Your task to perform on an android device: remove spam from my inbox in the gmail app Image 0: 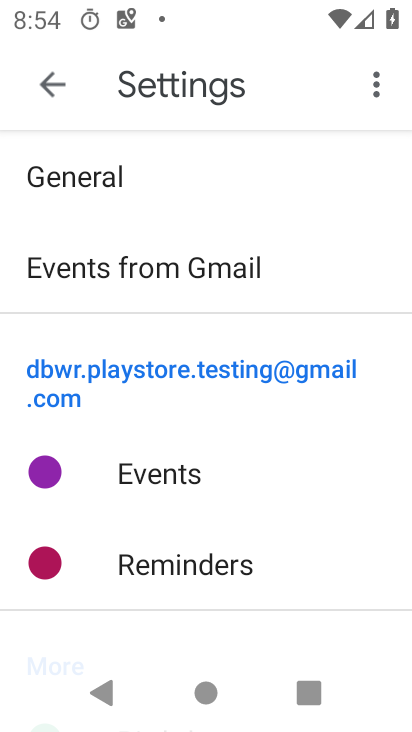
Step 0: press home button
Your task to perform on an android device: remove spam from my inbox in the gmail app Image 1: 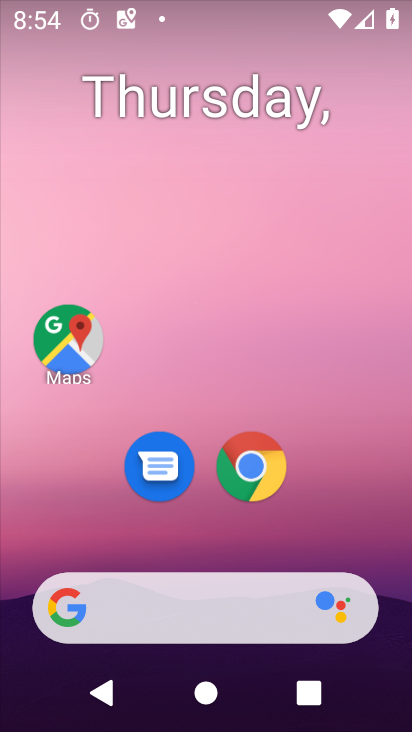
Step 1: drag from (360, 482) to (308, 82)
Your task to perform on an android device: remove spam from my inbox in the gmail app Image 2: 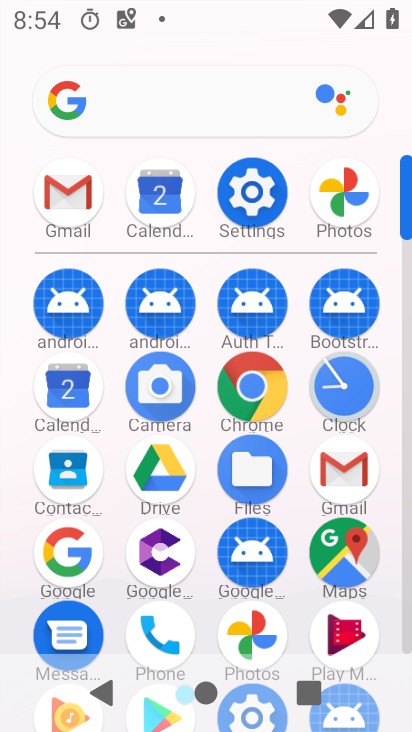
Step 2: click (91, 197)
Your task to perform on an android device: remove spam from my inbox in the gmail app Image 3: 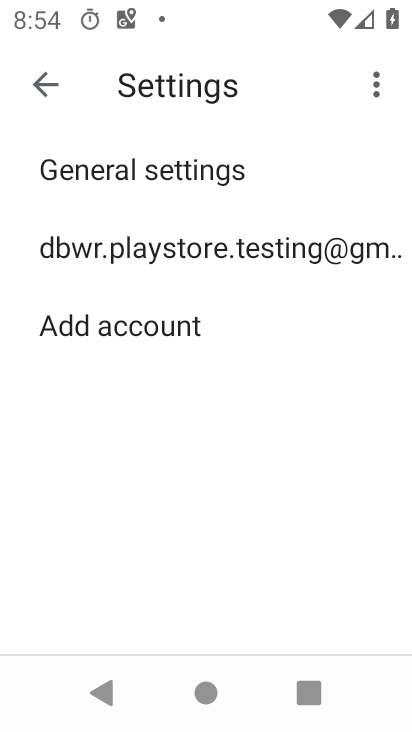
Step 3: click (44, 84)
Your task to perform on an android device: remove spam from my inbox in the gmail app Image 4: 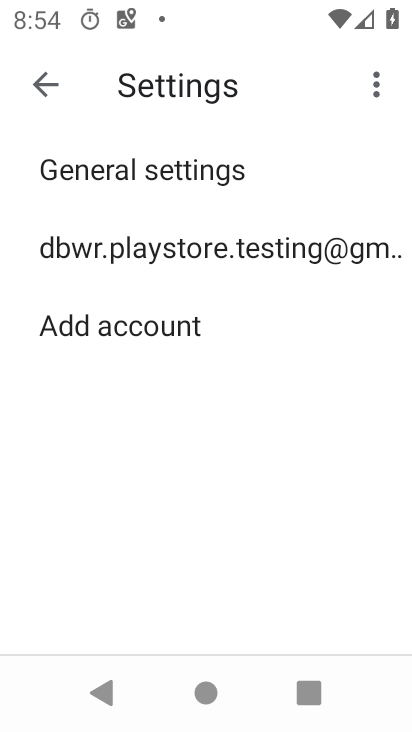
Step 4: click (40, 86)
Your task to perform on an android device: remove spam from my inbox in the gmail app Image 5: 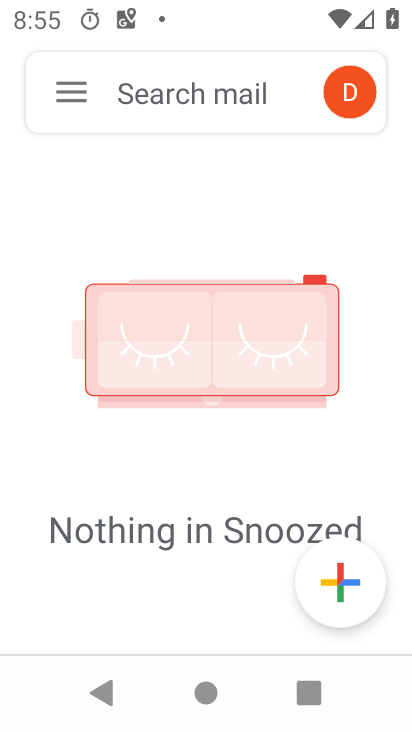
Step 5: click (61, 95)
Your task to perform on an android device: remove spam from my inbox in the gmail app Image 6: 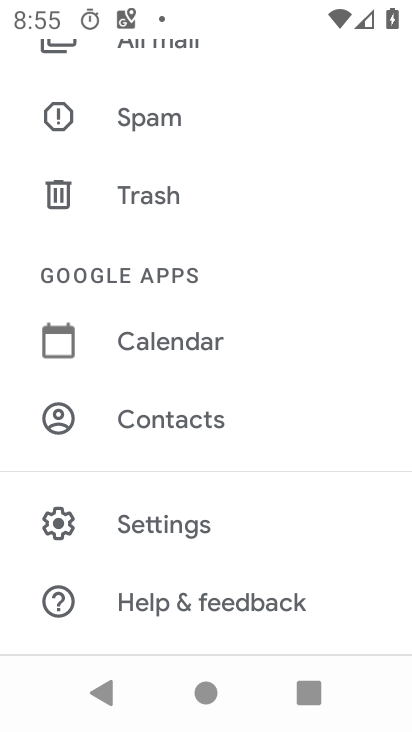
Step 6: click (202, 123)
Your task to perform on an android device: remove spam from my inbox in the gmail app Image 7: 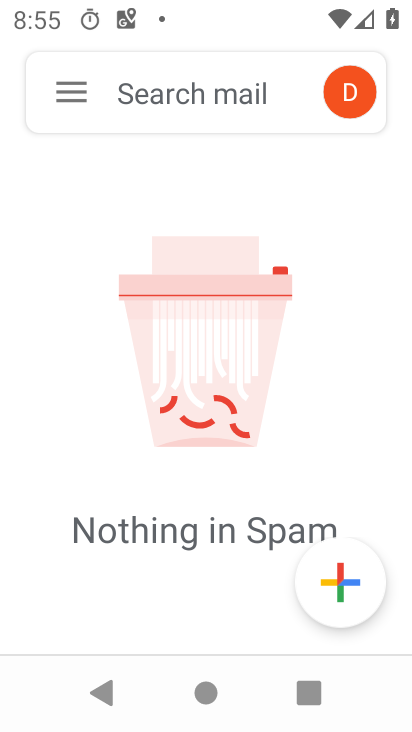
Step 7: task complete